Your task to perform on an android device: Open Google Image 0: 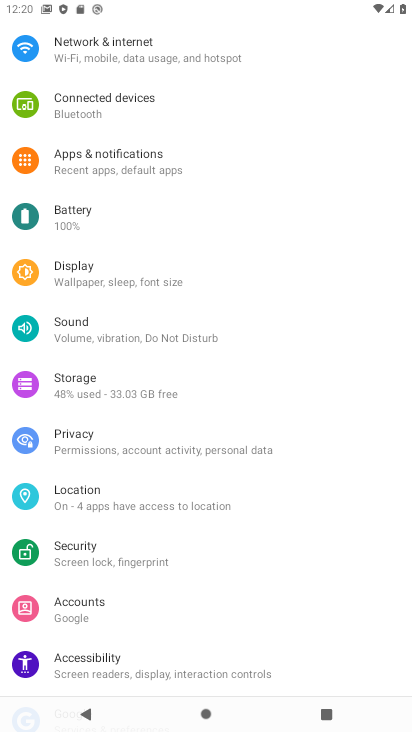
Step 0: press home button
Your task to perform on an android device: Open Google Image 1: 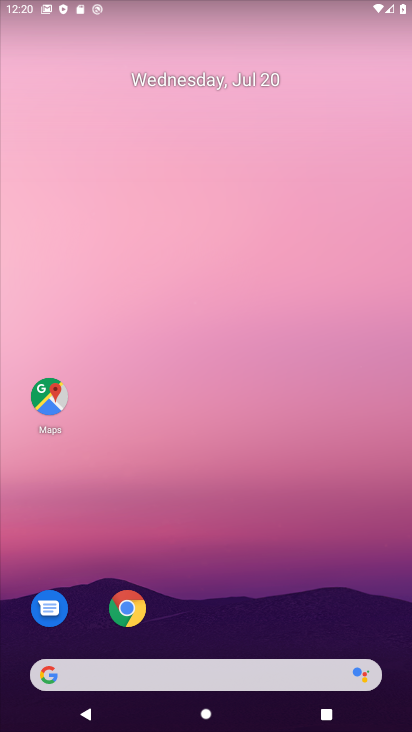
Step 1: drag from (172, 632) to (177, 258)
Your task to perform on an android device: Open Google Image 2: 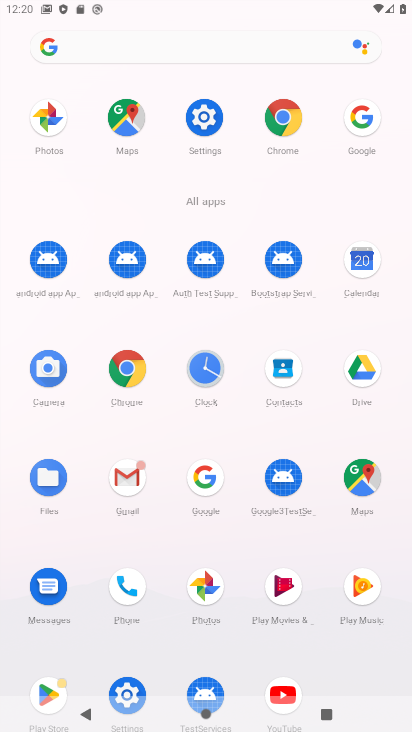
Step 2: click (206, 481)
Your task to perform on an android device: Open Google Image 3: 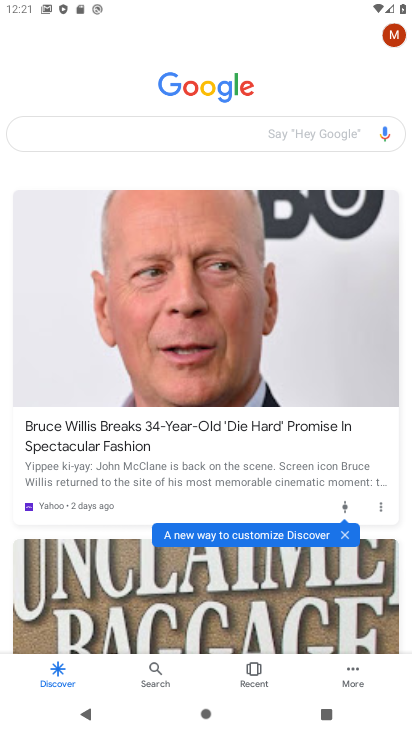
Step 3: task complete